Your task to perform on an android device: change keyboard looks Image 0: 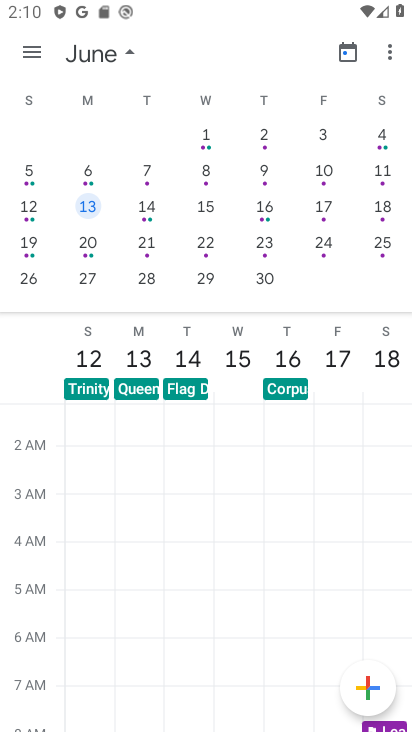
Step 0: press home button
Your task to perform on an android device: change keyboard looks Image 1: 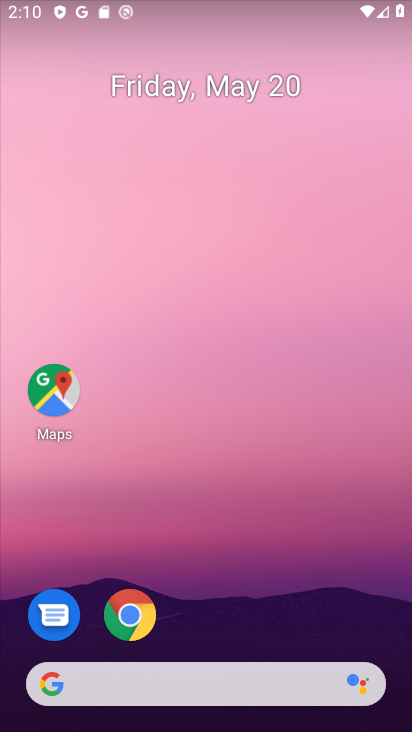
Step 1: drag from (185, 649) to (183, 214)
Your task to perform on an android device: change keyboard looks Image 2: 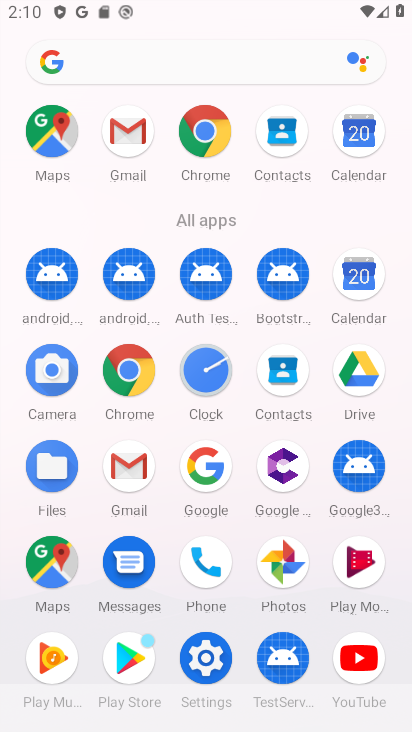
Step 2: click (215, 660)
Your task to perform on an android device: change keyboard looks Image 3: 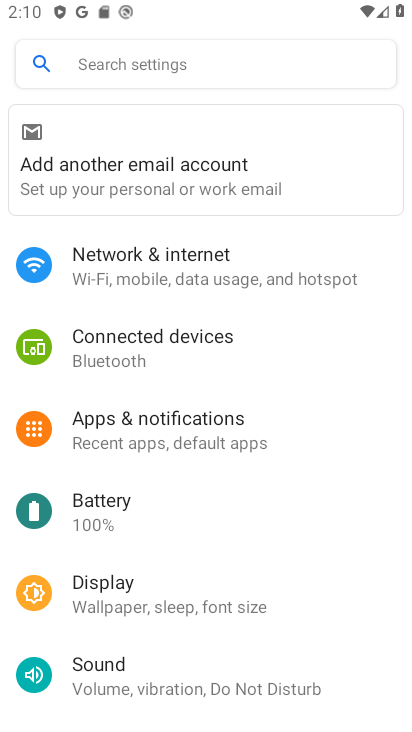
Step 3: drag from (215, 660) to (184, 170)
Your task to perform on an android device: change keyboard looks Image 4: 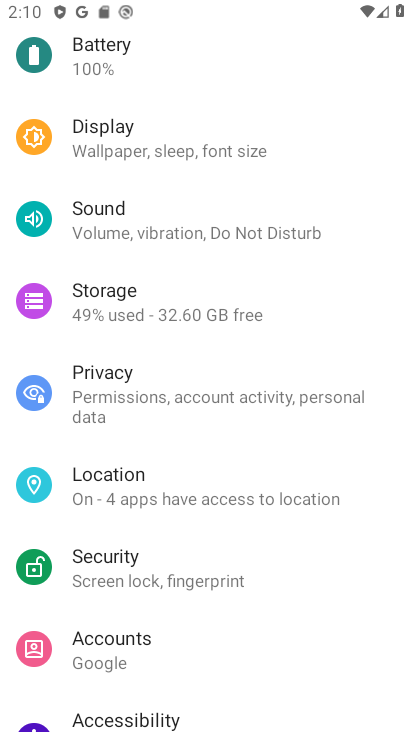
Step 4: drag from (254, 606) to (226, 110)
Your task to perform on an android device: change keyboard looks Image 5: 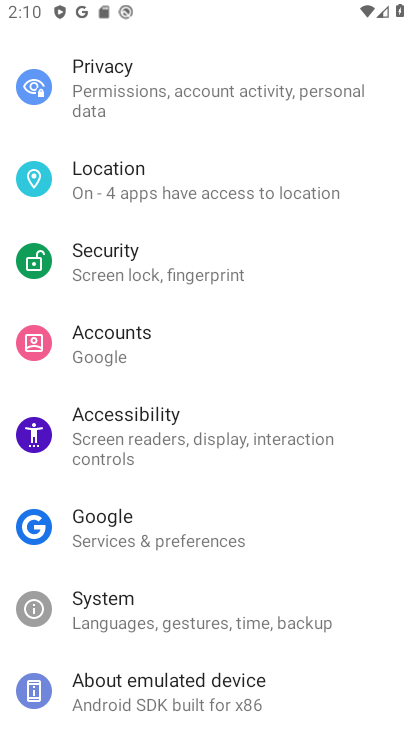
Step 5: click (312, 641)
Your task to perform on an android device: change keyboard looks Image 6: 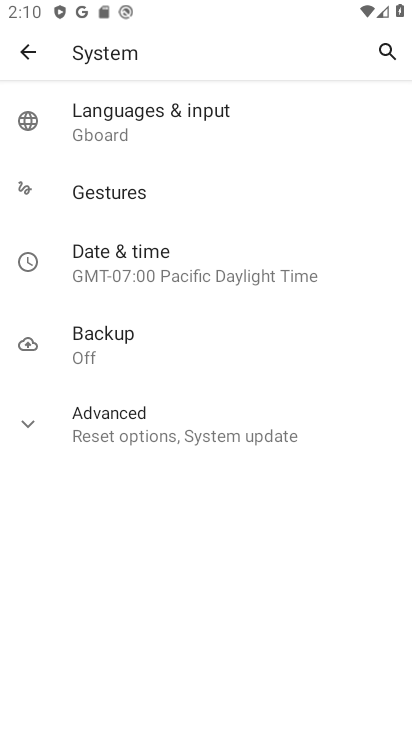
Step 6: click (180, 129)
Your task to perform on an android device: change keyboard looks Image 7: 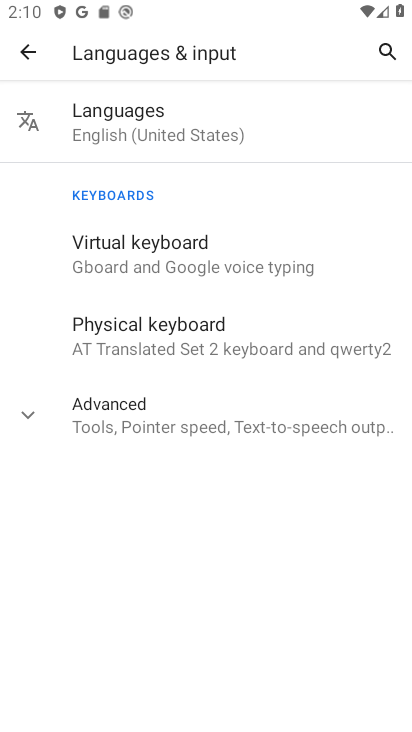
Step 7: click (229, 241)
Your task to perform on an android device: change keyboard looks Image 8: 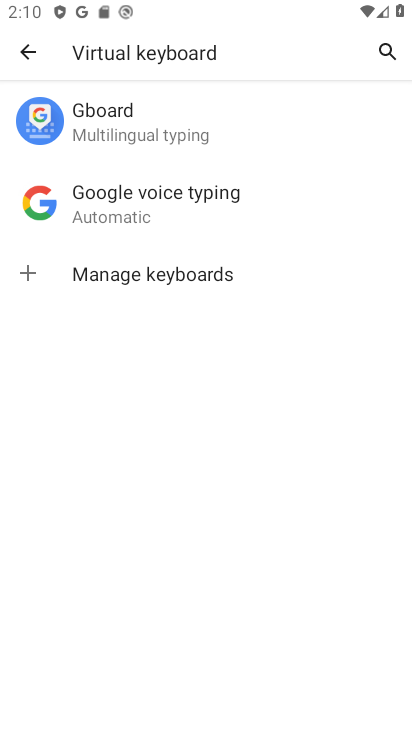
Step 8: click (202, 124)
Your task to perform on an android device: change keyboard looks Image 9: 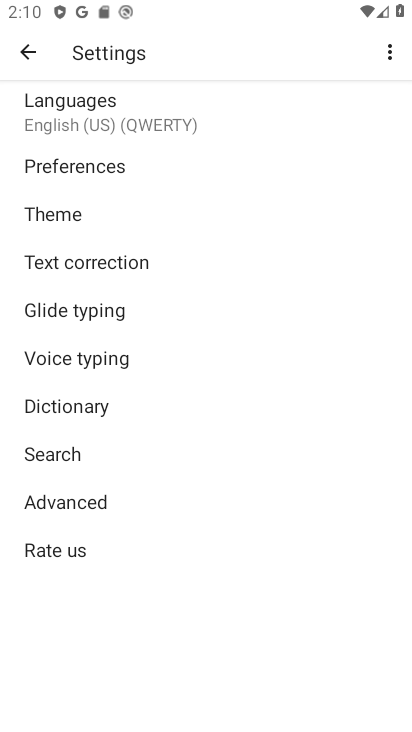
Step 9: click (155, 206)
Your task to perform on an android device: change keyboard looks Image 10: 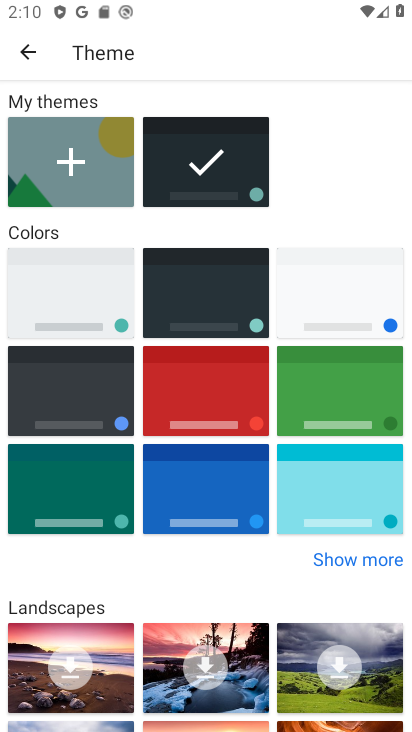
Step 10: click (198, 283)
Your task to perform on an android device: change keyboard looks Image 11: 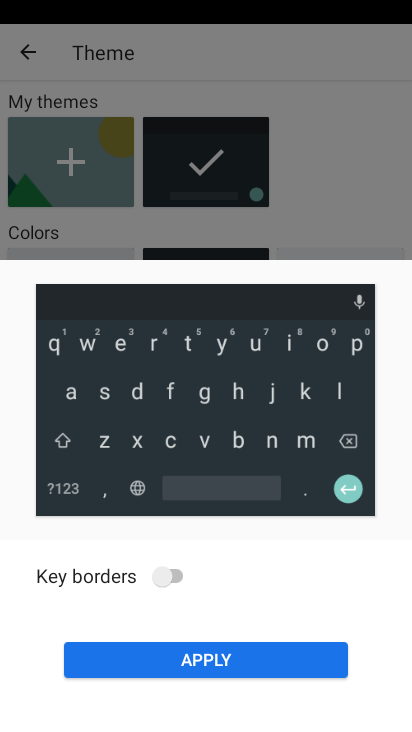
Step 11: click (250, 665)
Your task to perform on an android device: change keyboard looks Image 12: 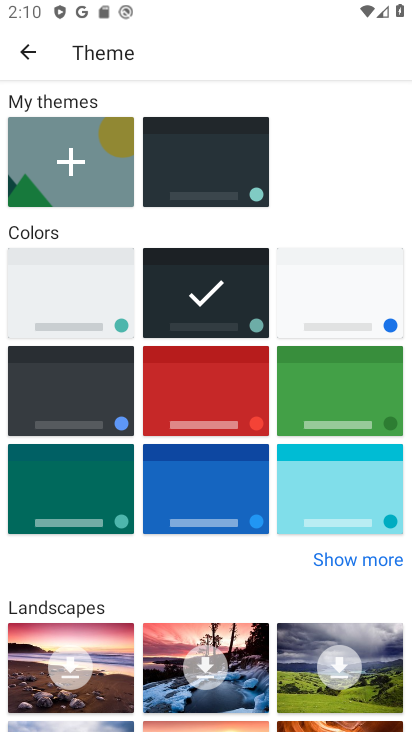
Step 12: task complete